Your task to perform on an android device: Show the shopping cart on newegg.com. Search for usb-a to usb-b on newegg.com, select the first entry, and add it to the cart. Image 0: 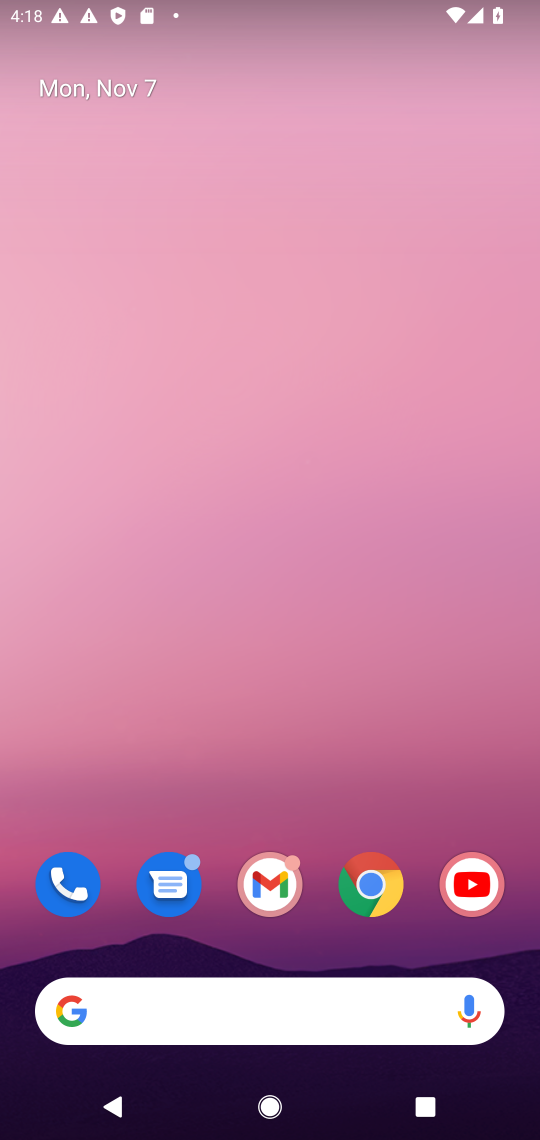
Step 0: drag from (323, 906) to (299, 177)
Your task to perform on an android device: Show the shopping cart on newegg.com. Search for usb-a to usb-b on newegg.com, select the first entry, and add it to the cart. Image 1: 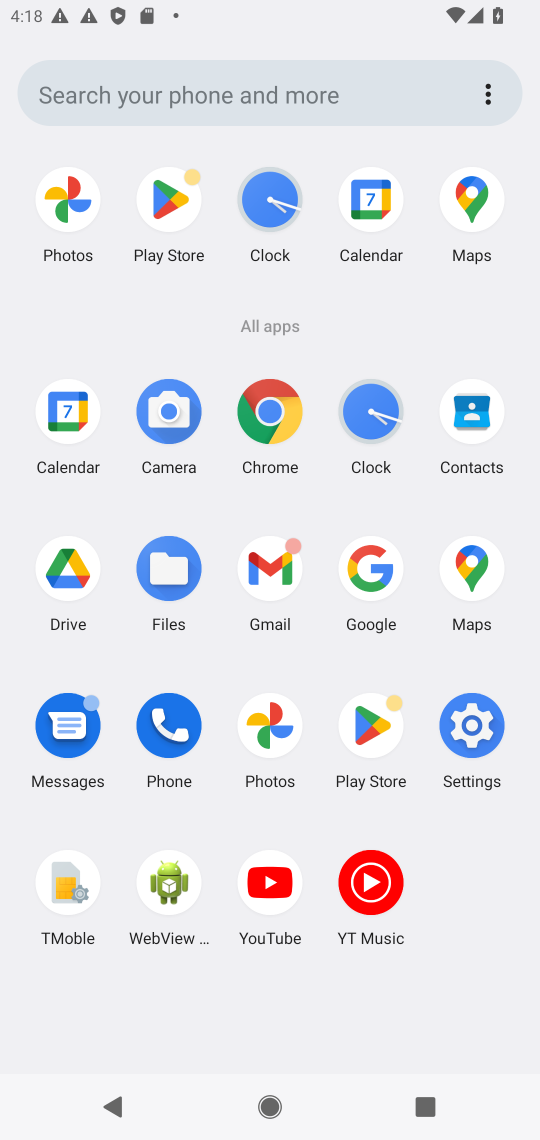
Step 1: click (270, 405)
Your task to perform on an android device: Show the shopping cart on newegg.com. Search for usb-a to usb-b on newegg.com, select the first entry, and add it to the cart. Image 2: 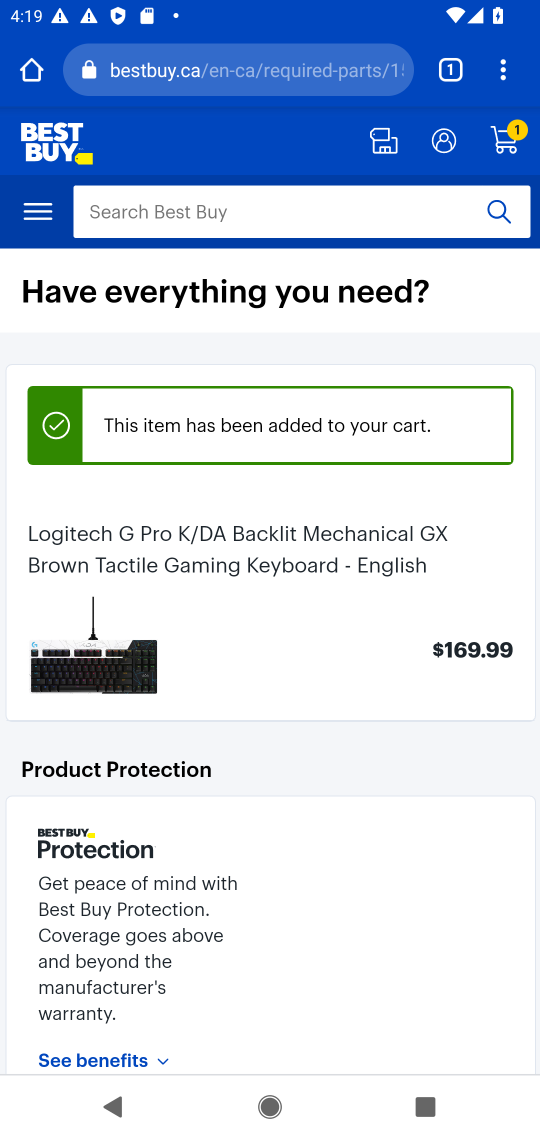
Step 2: click (336, 214)
Your task to perform on an android device: Show the shopping cart on newegg.com. Search for usb-a to usb-b on newegg.com, select the first entry, and add it to the cart. Image 3: 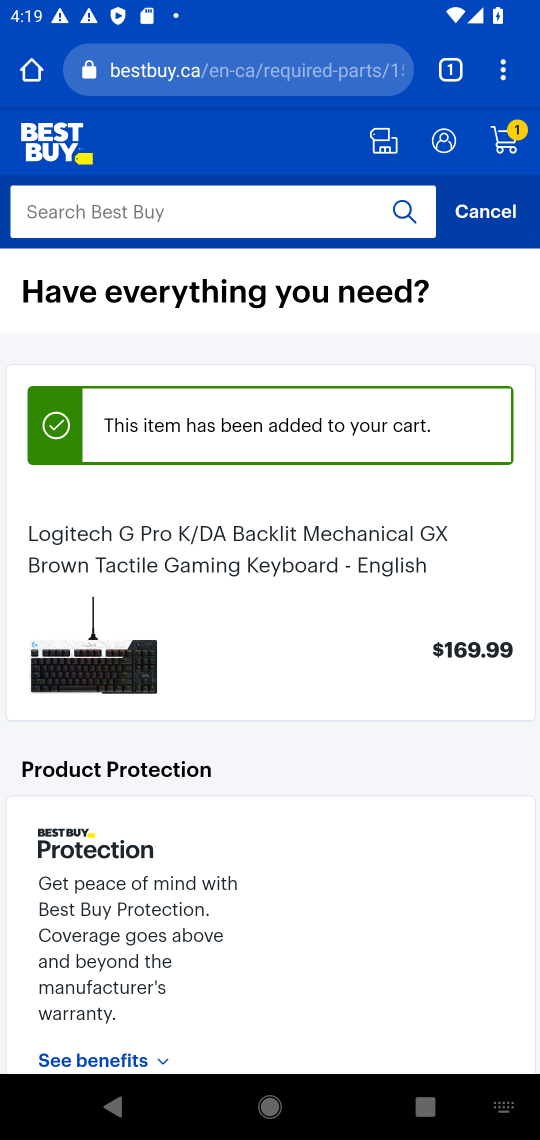
Step 3: type "newegg.com"
Your task to perform on an android device: Show the shopping cart on newegg.com. Search for usb-a to usb-b on newegg.com, select the first entry, and add it to the cart. Image 4: 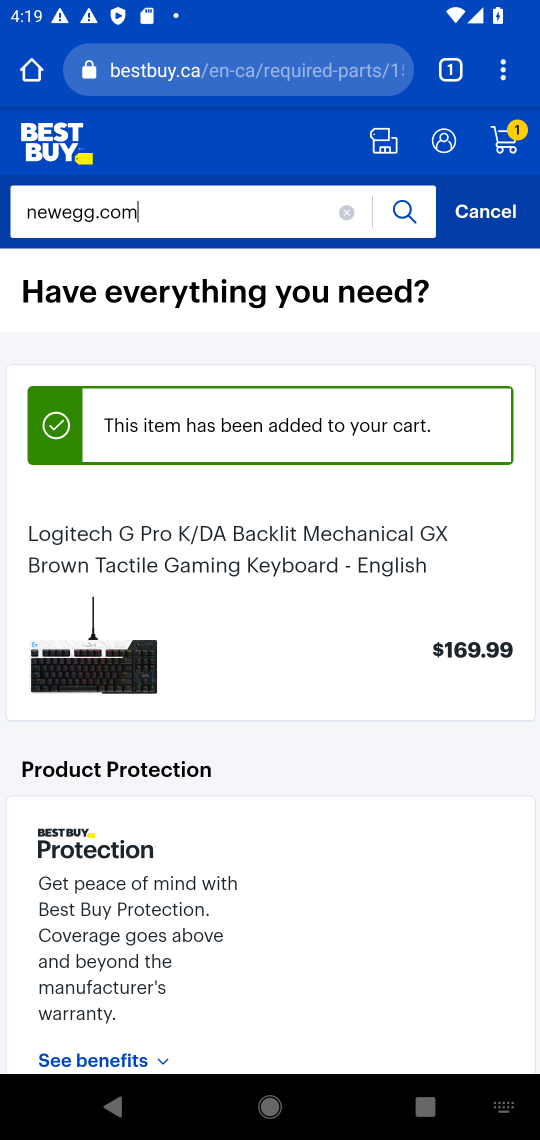
Step 4: press enter
Your task to perform on an android device: Show the shopping cart on newegg.com. Search for usb-a to usb-b on newegg.com, select the first entry, and add it to the cart. Image 5: 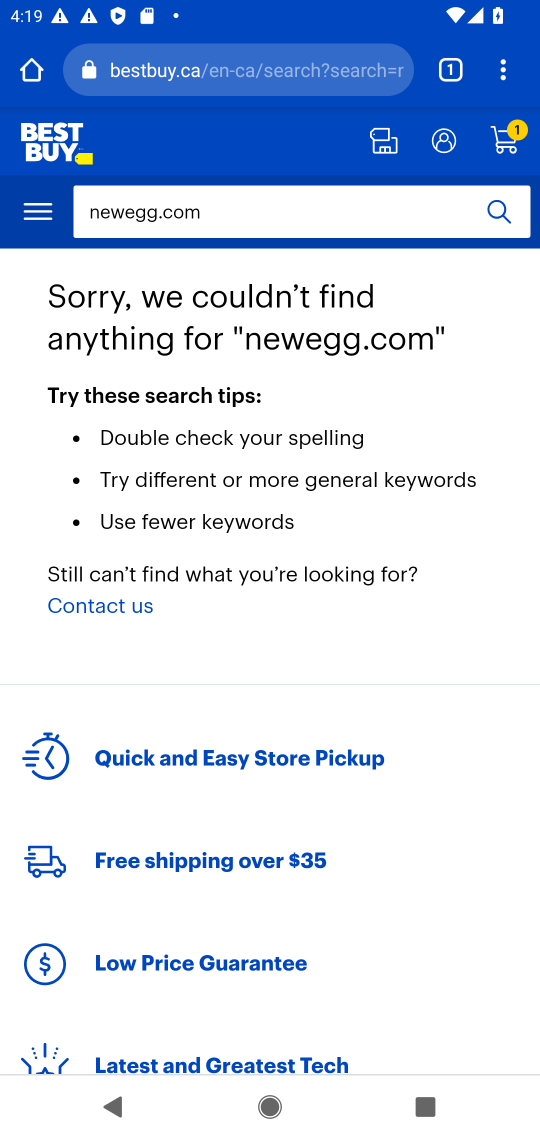
Step 5: click (500, 137)
Your task to perform on an android device: Show the shopping cart on newegg.com. Search for usb-a to usb-b on newegg.com, select the first entry, and add it to the cart. Image 6: 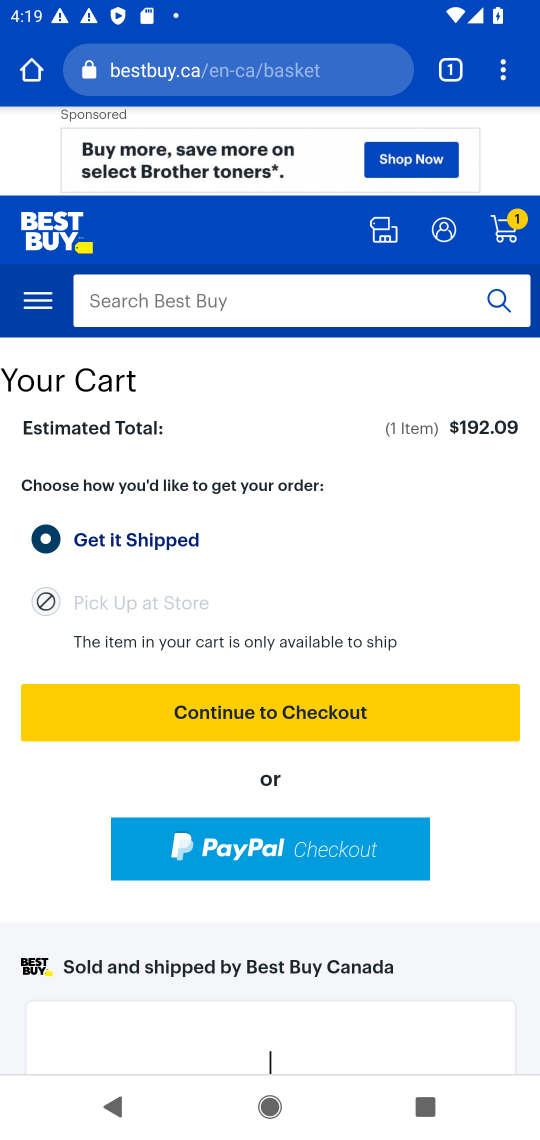
Step 6: click (337, 296)
Your task to perform on an android device: Show the shopping cart on newegg.com. Search for usb-a to usb-b on newegg.com, select the first entry, and add it to the cart. Image 7: 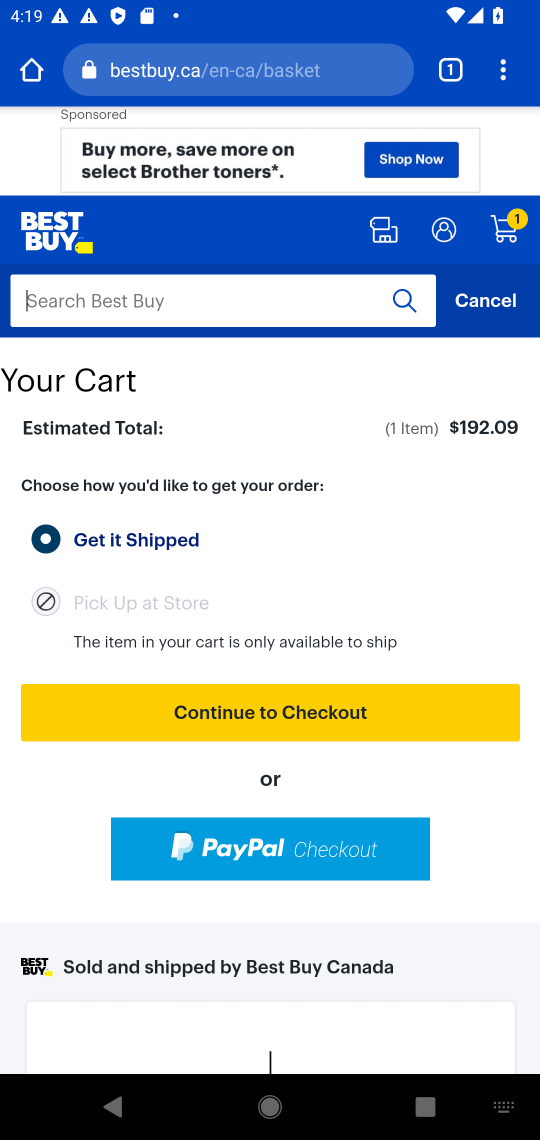
Step 7: type "usb-a to usb-b"
Your task to perform on an android device: Show the shopping cart on newegg.com. Search for usb-a to usb-b on newegg.com, select the first entry, and add it to the cart. Image 8: 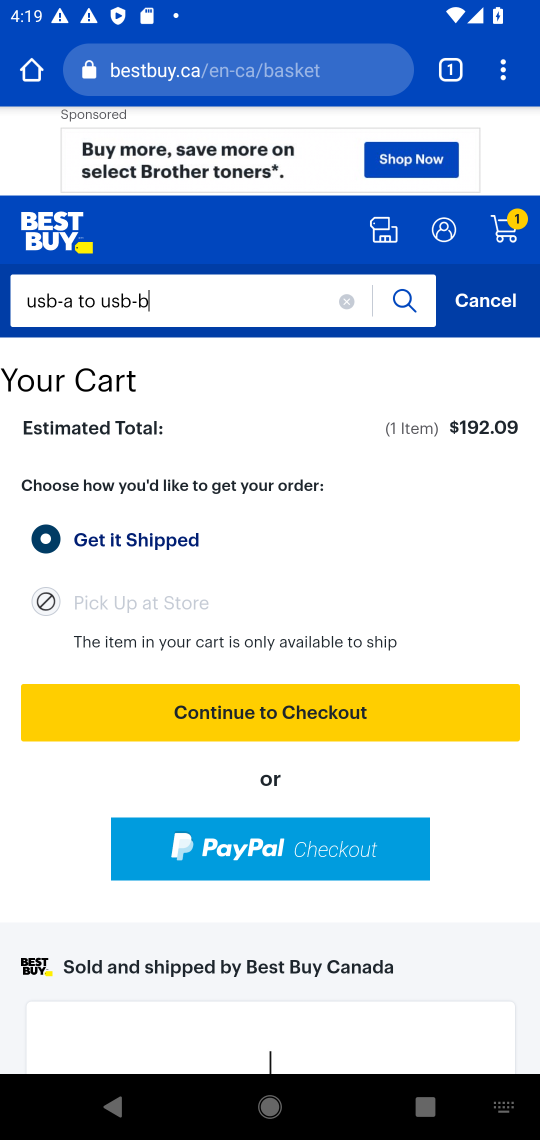
Step 8: press enter
Your task to perform on an android device: Show the shopping cart on newegg.com. Search for usb-a to usb-b on newegg.com, select the first entry, and add it to the cart. Image 9: 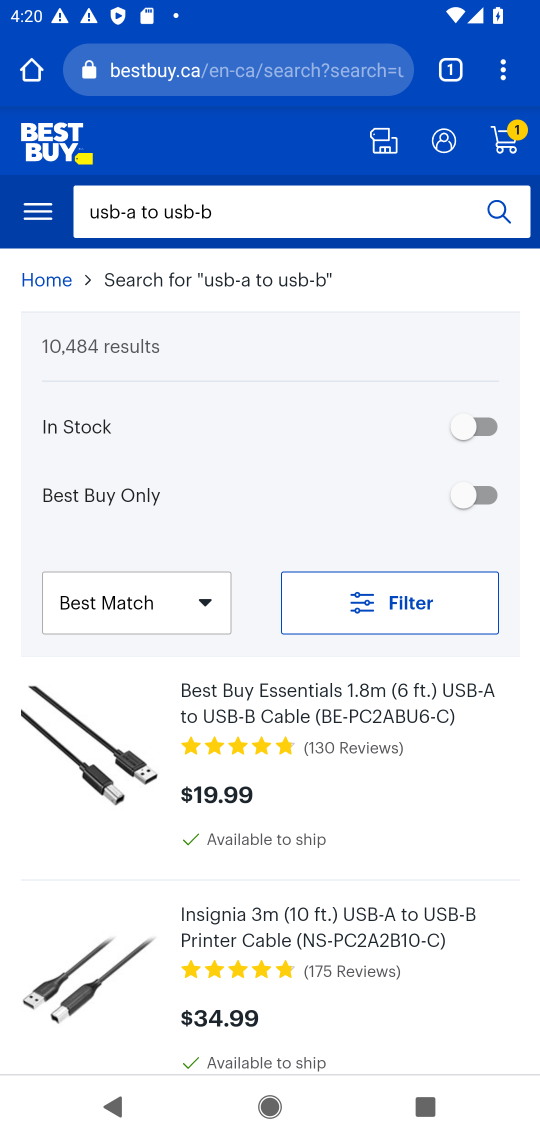
Step 9: click (295, 729)
Your task to perform on an android device: Show the shopping cart on newegg.com. Search for usb-a to usb-b on newegg.com, select the first entry, and add it to the cart. Image 10: 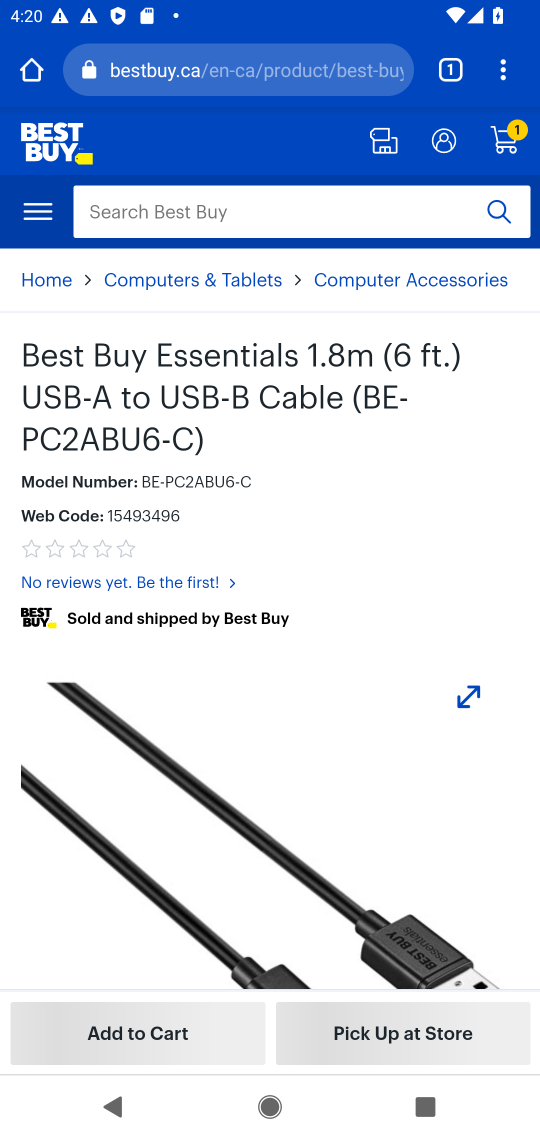
Step 10: drag from (385, 879) to (373, 482)
Your task to perform on an android device: Show the shopping cart on newegg.com. Search for usb-a to usb-b on newegg.com, select the first entry, and add it to the cart. Image 11: 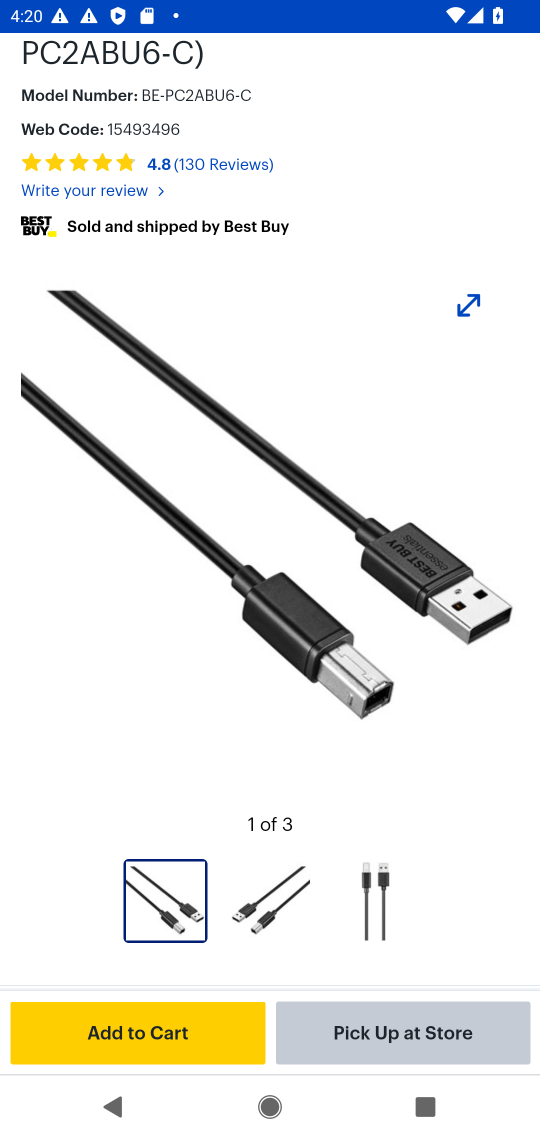
Step 11: click (127, 1027)
Your task to perform on an android device: Show the shopping cart on newegg.com. Search for usb-a to usb-b on newegg.com, select the first entry, and add it to the cart. Image 12: 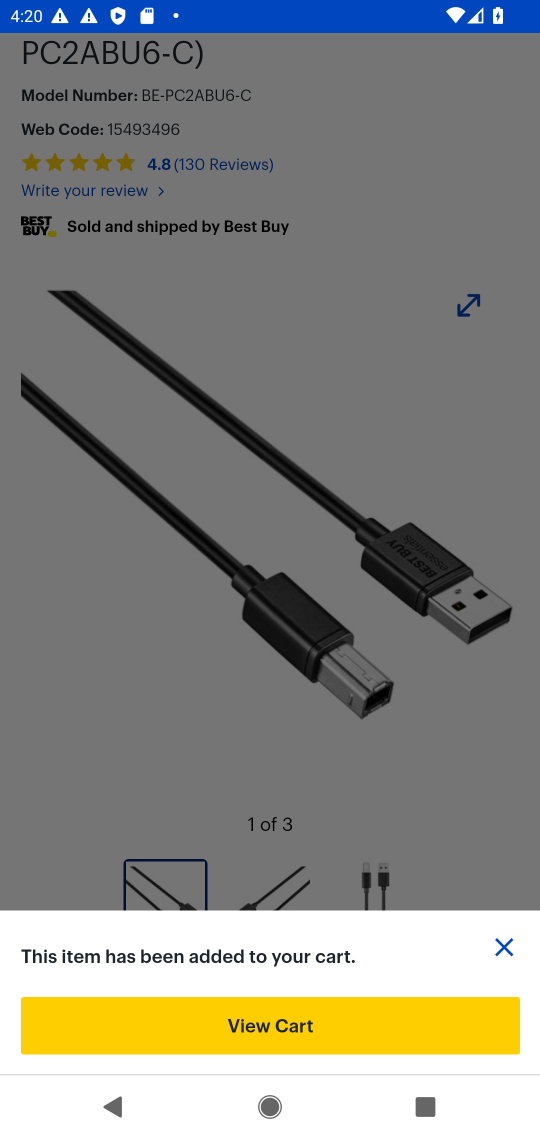
Step 12: task complete